Your task to perform on an android device: Open battery settings Image 0: 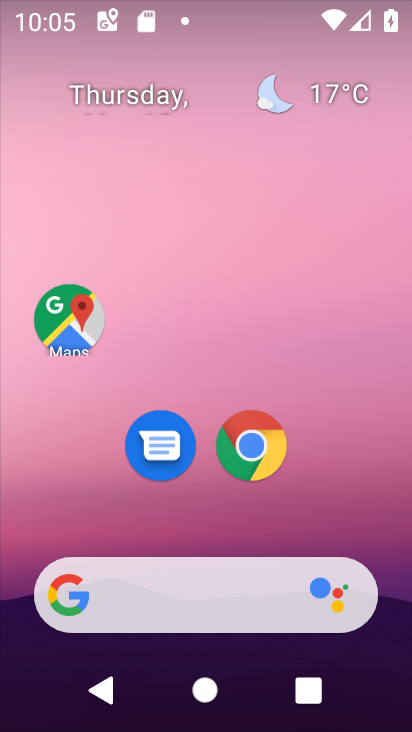
Step 0: drag from (261, 533) to (251, 232)
Your task to perform on an android device: Open battery settings Image 1: 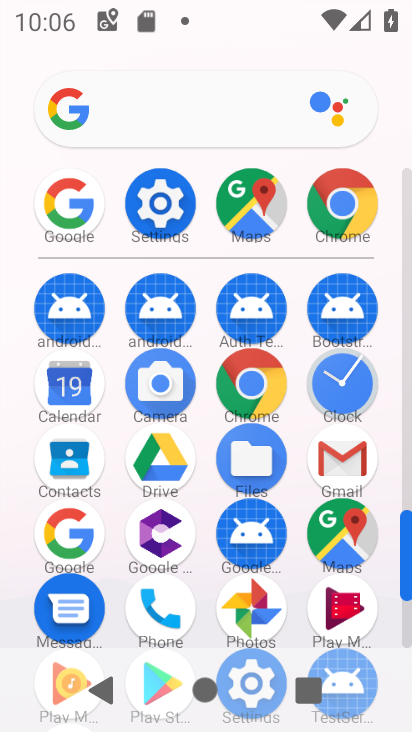
Step 1: click (160, 194)
Your task to perform on an android device: Open battery settings Image 2: 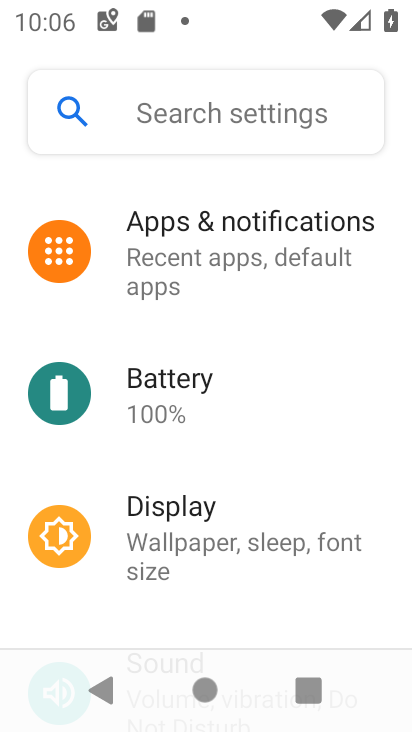
Step 2: click (171, 422)
Your task to perform on an android device: Open battery settings Image 3: 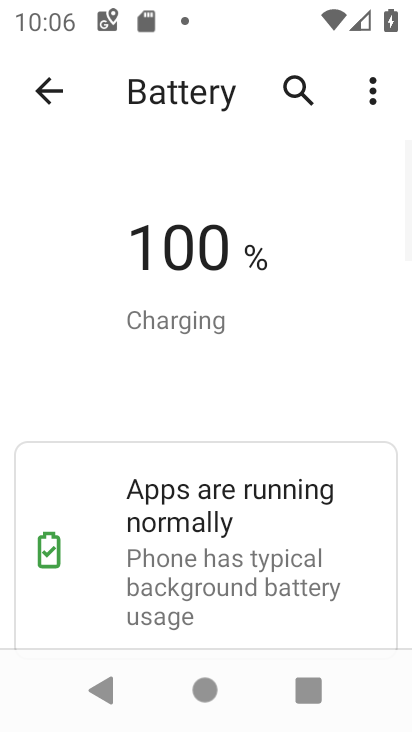
Step 3: task complete